Your task to perform on an android device: turn on notifications settings in the gmail app Image 0: 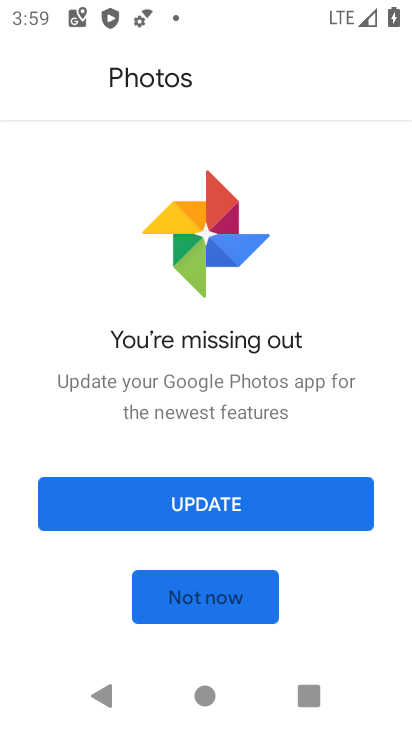
Step 0: press home button
Your task to perform on an android device: turn on notifications settings in the gmail app Image 1: 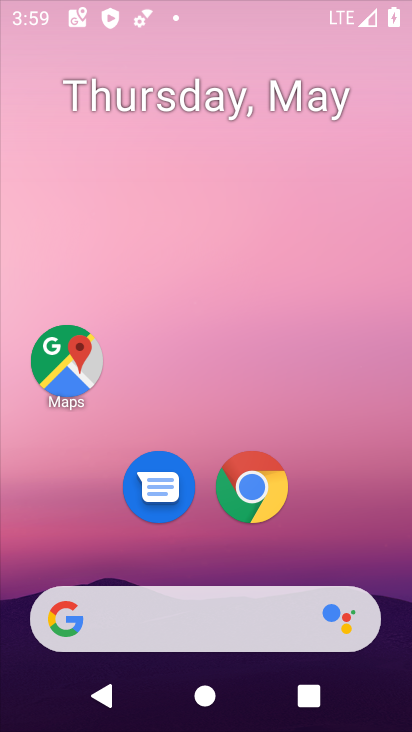
Step 1: drag from (216, 619) to (272, 165)
Your task to perform on an android device: turn on notifications settings in the gmail app Image 2: 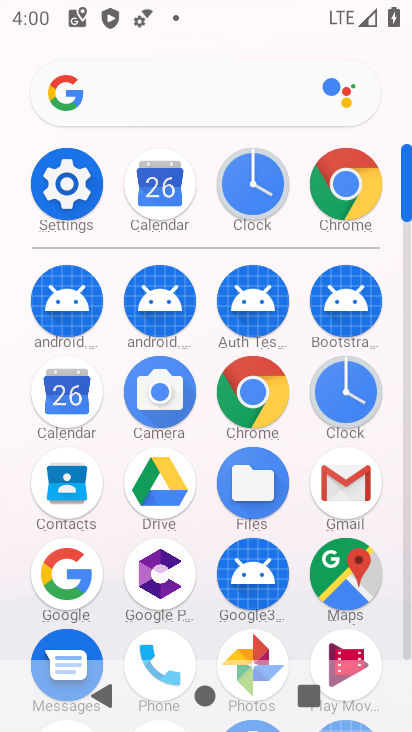
Step 2: click (362, 507)
Your task to perform on an android device: turn on notifications settings in the gmail app Image 3: 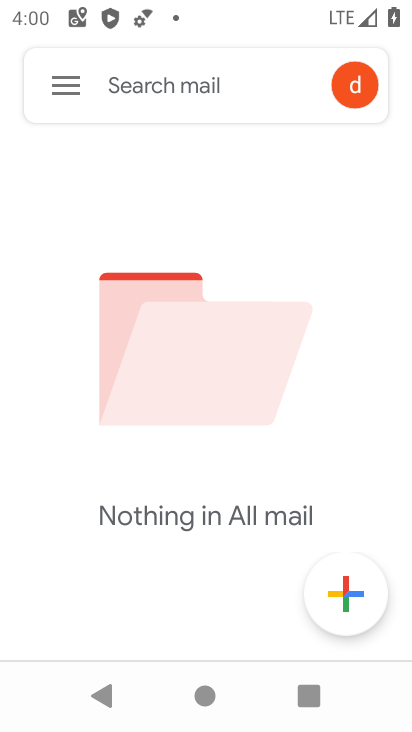
Step 3: click (69, 94)
Your task to perform on an android device: turn on notifications settings in the gmail app Image 4: 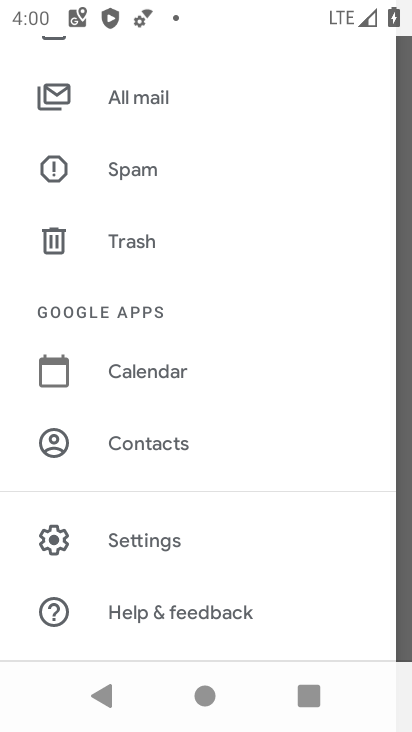
Step 4: click (154, 536)
Your task to perform on an android device: turn on notifications settings in the gmail app Image 5: 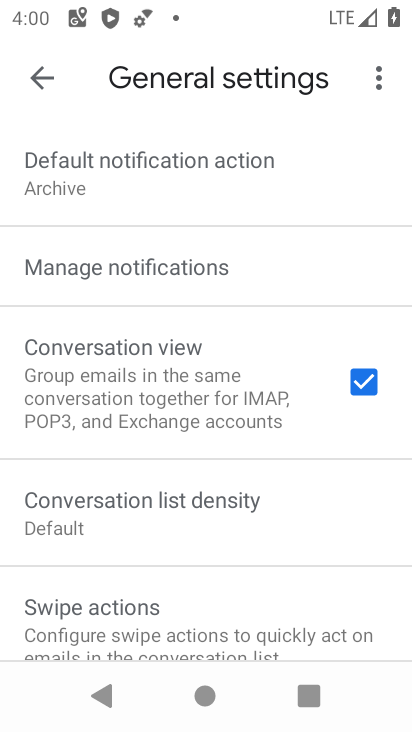
Step 5: click (217, 276)
Your task to perform on an android device: turn on notifications settings in the gmail app Image 6: 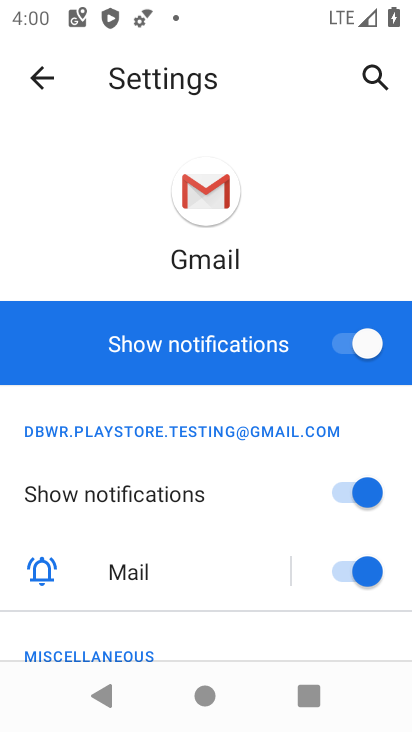
Step 6: task complete